Your task to perform on an android device: Show me popular games on the Play Store Image 0: 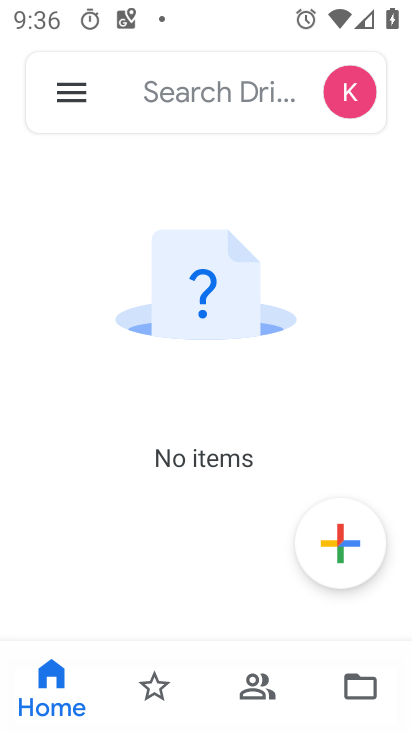
Step 0: press home button
Your task to perform on an android device: Show me popular games on the Play Store Image 1: 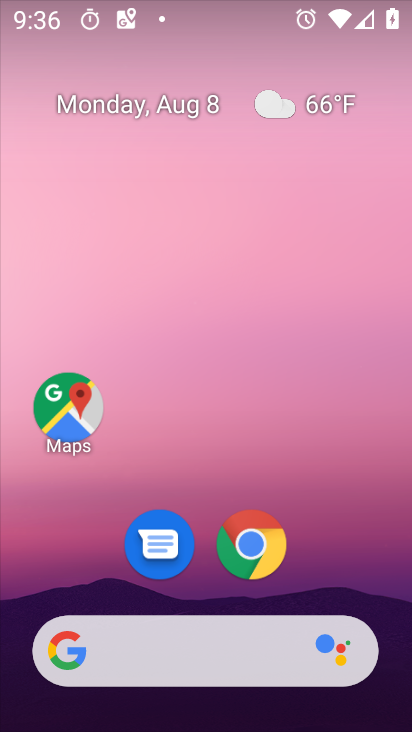
Step 1: drag from (313, 579) to (324, 0)
Your task to perform on an android device: Show me popular games on the Play Store Image 2: 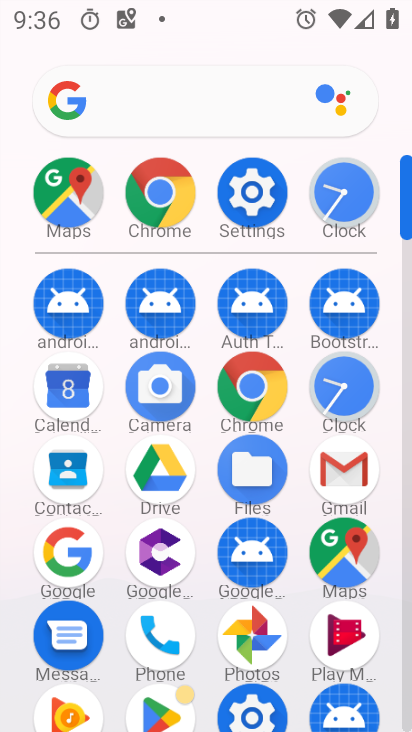
Step 2: drag from (198, 633) to (224, 242)
Your task to perform on an android device: Show me popular games on the Play Store Image 3: 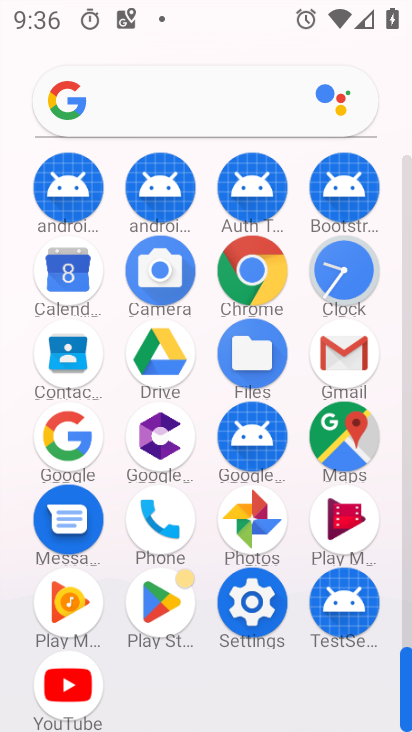
Step 3: click (155, 602)
Your task to perform on an android device: Show me popular games on the Play Store Image 4: 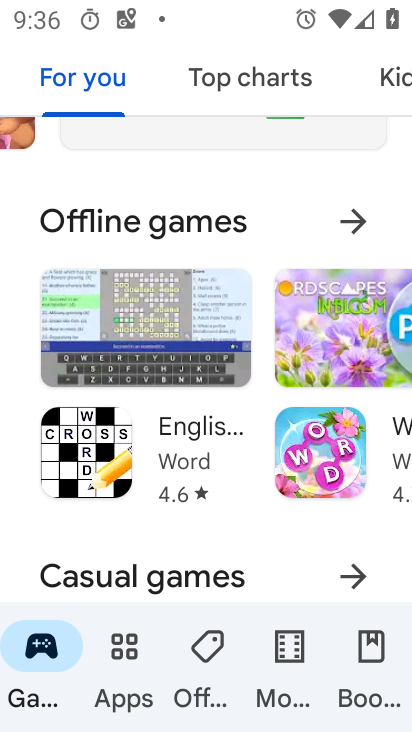
Step 4: task complete